Your task to perform on an android device: Go to network settings Image 0: 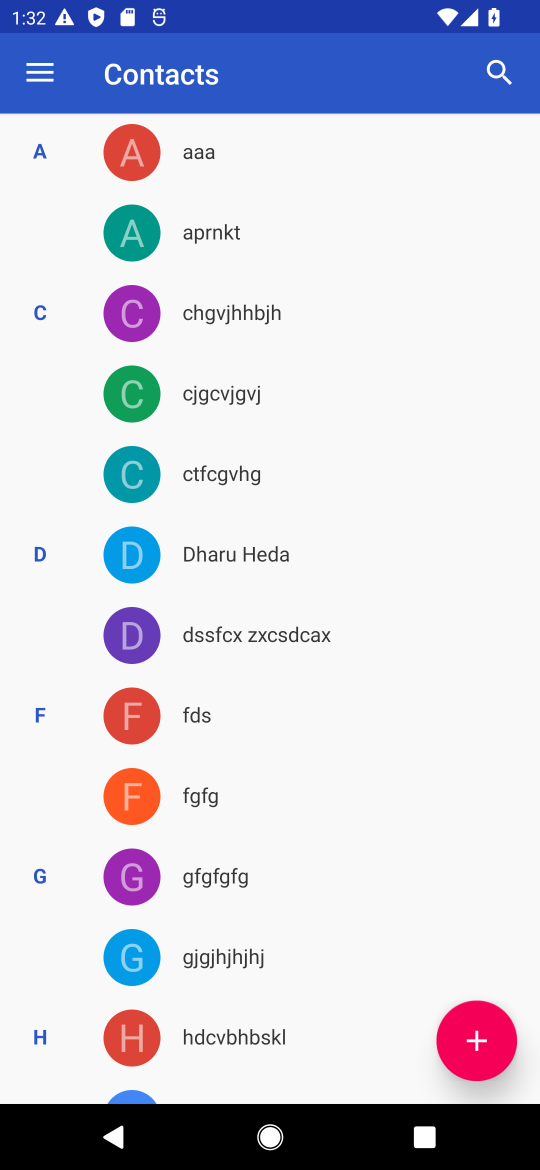
Step 0: press back button
Your task to perform on an android device: Go to network settings Image 1: 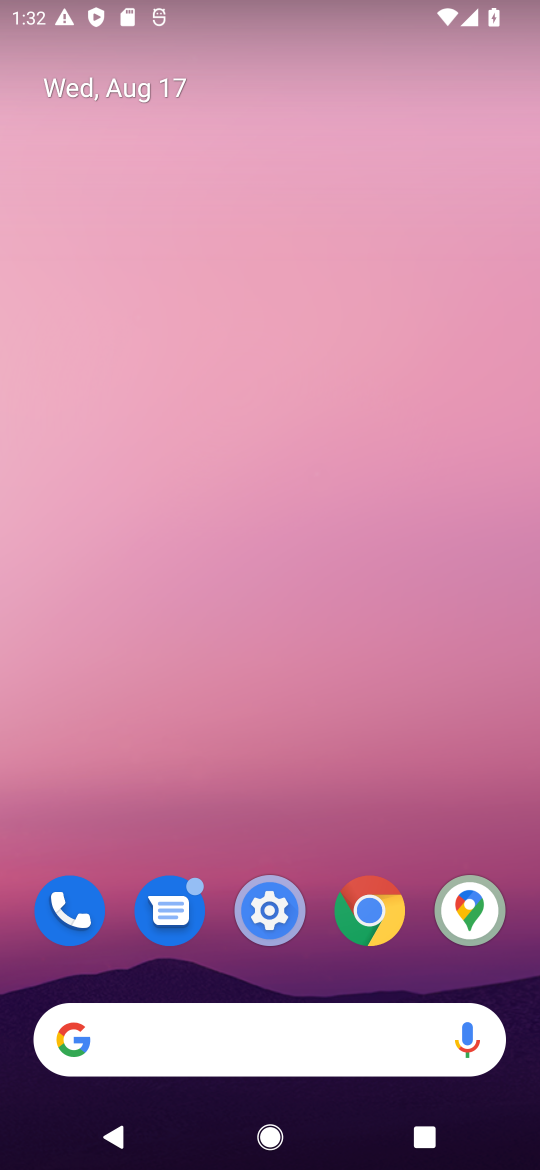
Step 1: click (272, 907)
Your task to perform on an android device: Go to network settings Image 2: 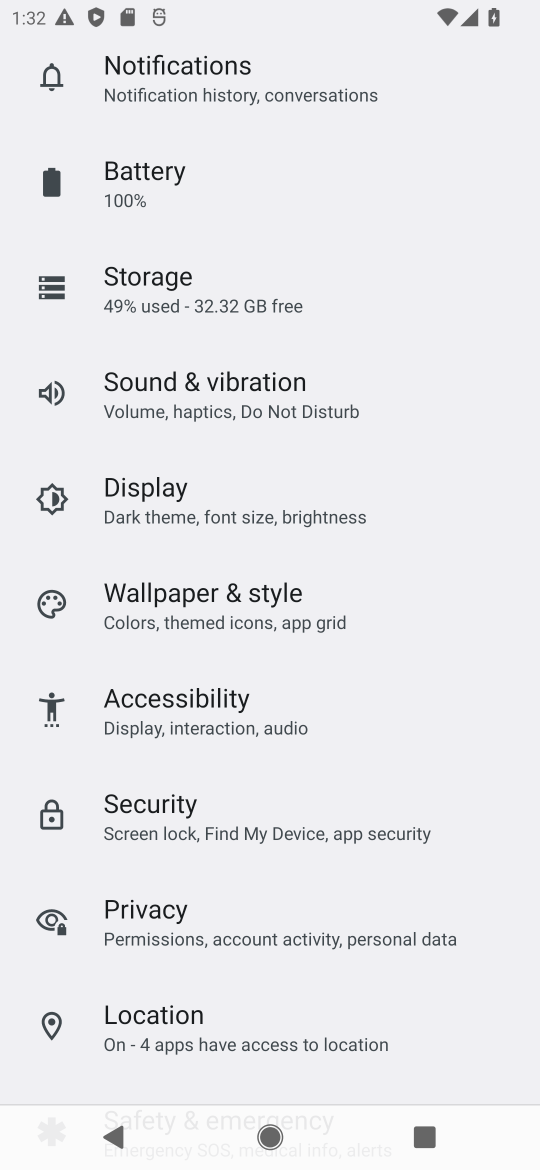
Step 2: drag from (327, 332) to (267, 1094)
Your task to perform on an android device: Go to network settings Image 3: 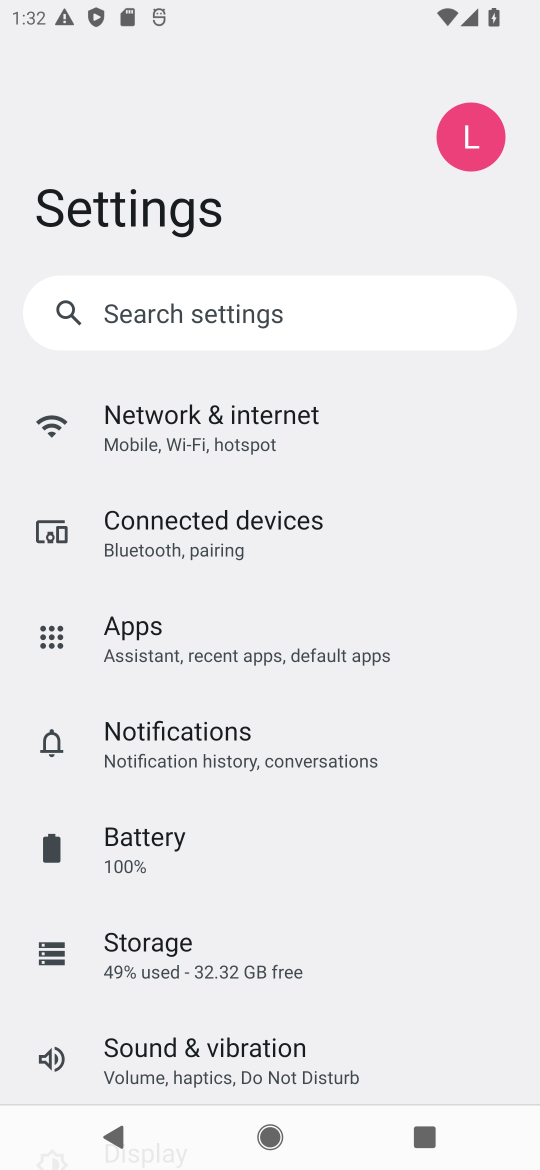
Step 3: click (213, 426)
Your task to perform on an android device: Go to network settings Image 4: 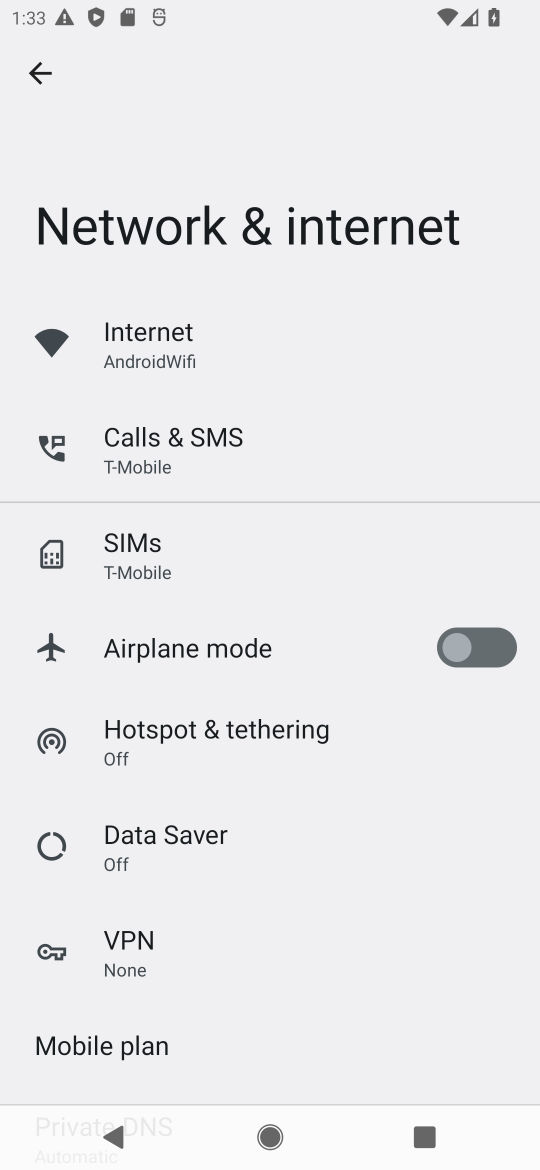
Step 4: task complete